Your task to perform on an android device: open a bookmark in the chrome app Image 0: 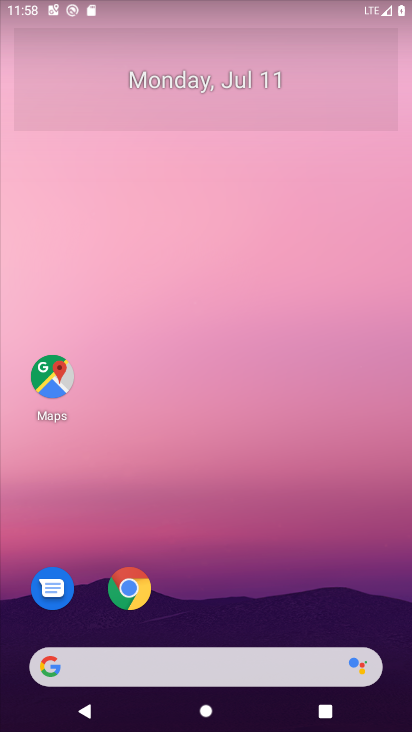
Step 0: drag from (269, 679) to (178, 225)
Your task to perform on an android device: open a bookmark in the chrome app Image 1: 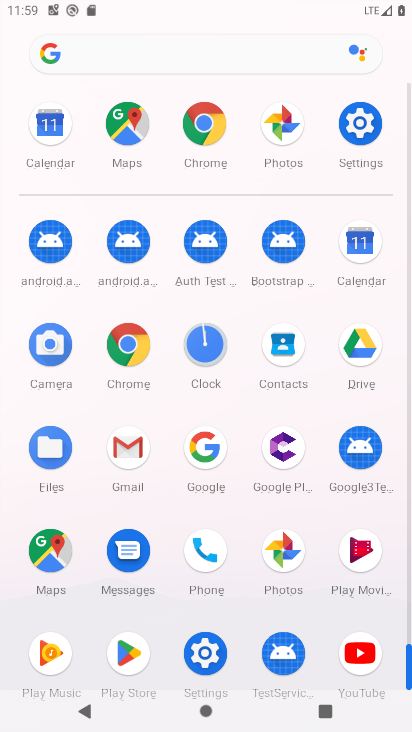
Step 1: click (216, 108)
Your task to perform on an android device: open a bookmark in the chrome app Image 2: 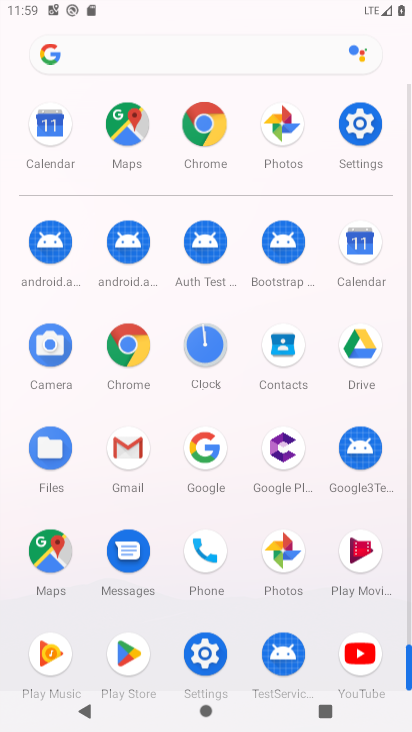
Step 2: click (203, 122)
Your task to perform on an android device: open a bookmark in the chrome app Image 3: 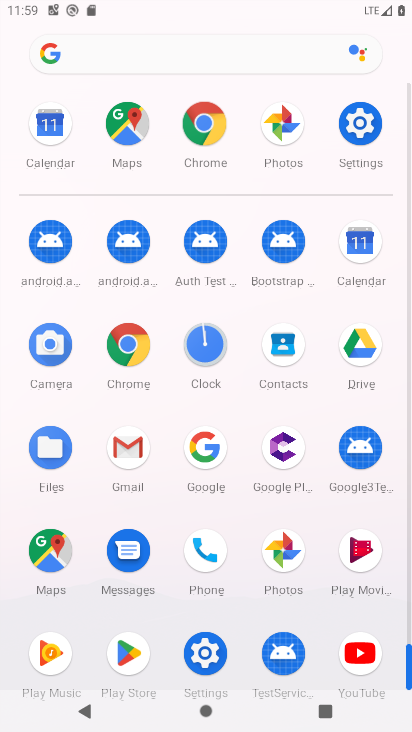
Step 3: click (206, 124)
Your task to perform on an android device: open a bookmark in the chrome app Image 4: 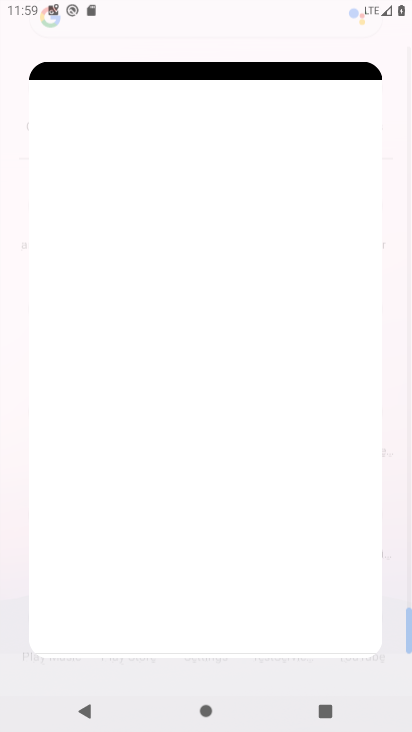
Step 4: click (210, 126)
Your task to perform on an android device: open a bookmark in the chrome app Image 5: 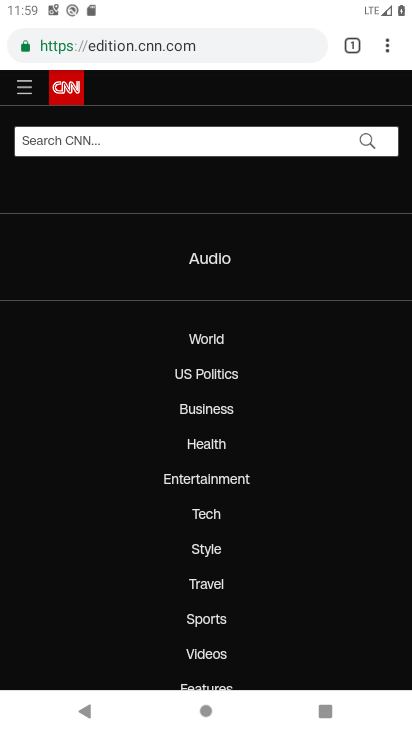
Step 5: press back button
Your task to perform on an android device: open a bookmark in the chrome app Image 6: 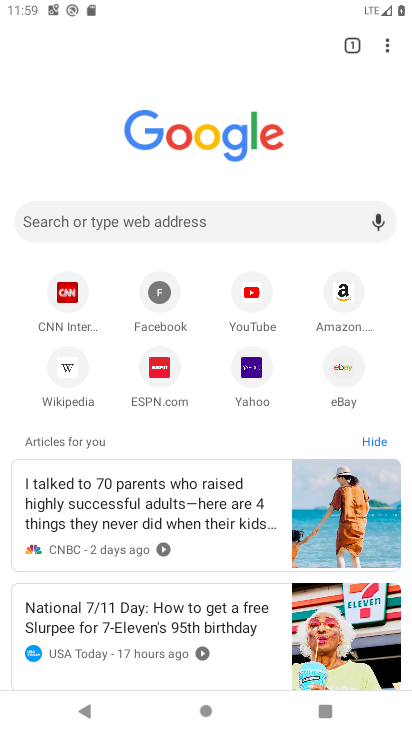
Step 6: drag from (379, 41) to (237, 171)
Your task to perform on an android device: open a bookmark in the chrome app Image 7: 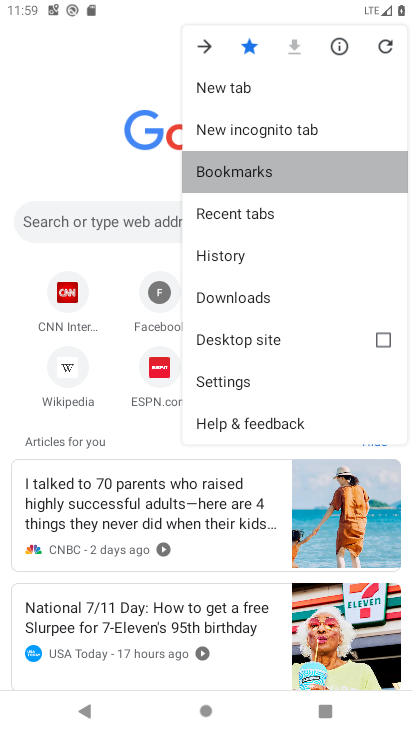
Step 7: click (240, 169)
Your task to perform on an android device: open a bookmark in the chrome app Image 8: 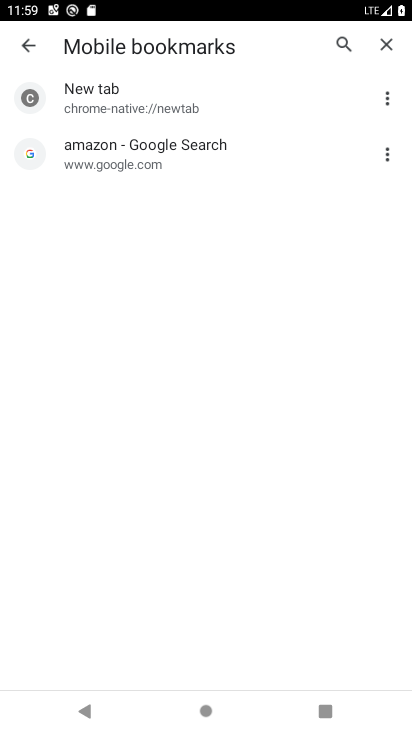
Step 8: task complete